Your task to perform on an android device: add a label to a message in the gmail app Image 0: 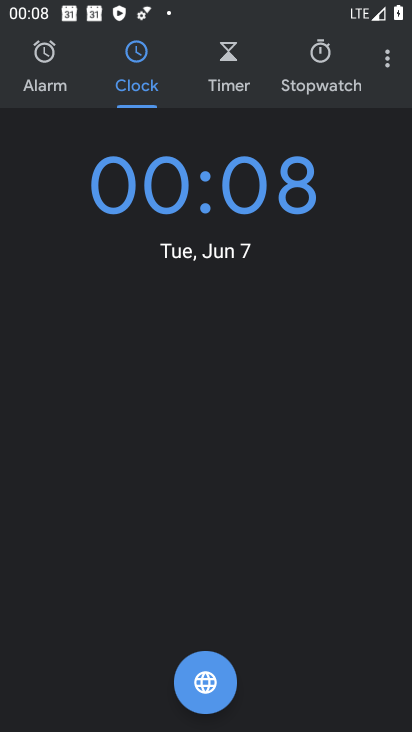
Step 0: press home button
Your task to perform on an android device: add a label to a message in the gmail app Image 1: 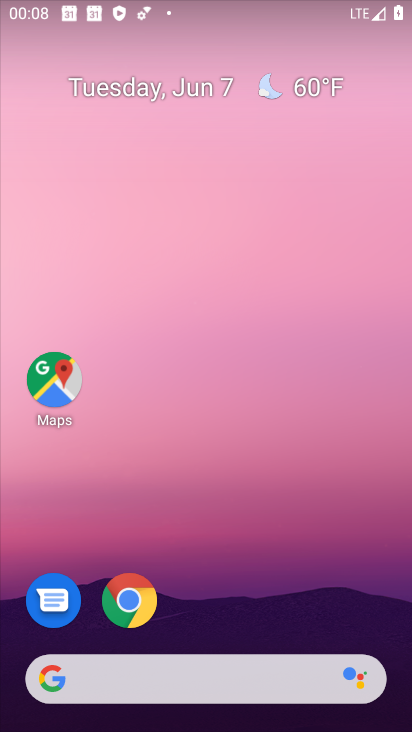
Step 1: drag from (233, 711) to (233, 95)
Your task to perform on an android device: add a label to a message in the gmail app Image 2: 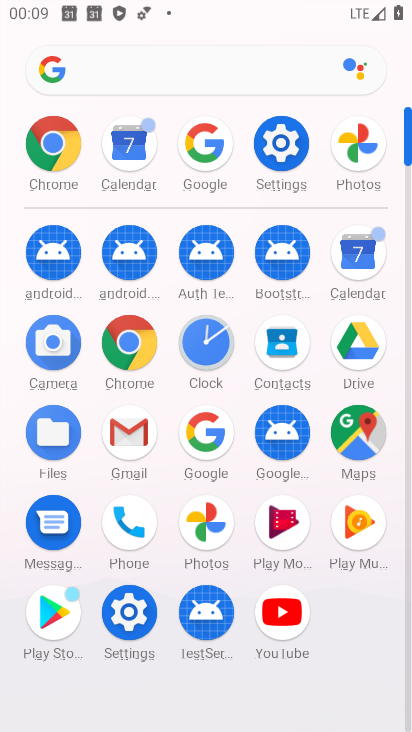
Step 2: click (132, 432)
Your task to perform on an android device: add a label to a message in the gmail app Image 3: 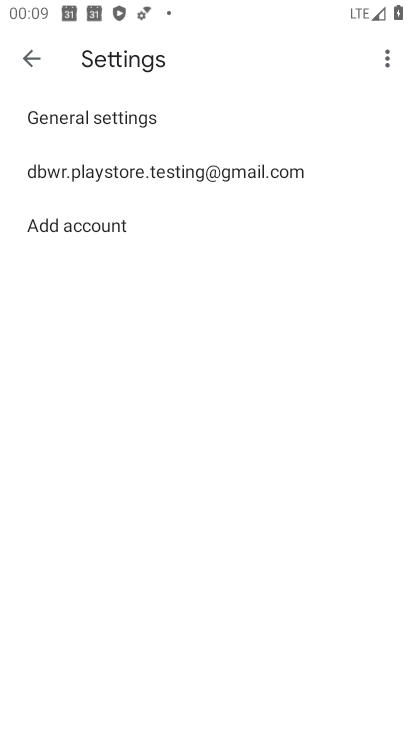
Step 3: click (37, 61)
Your task to perform on an android device: add a label to a message in the gmail app Image 4: 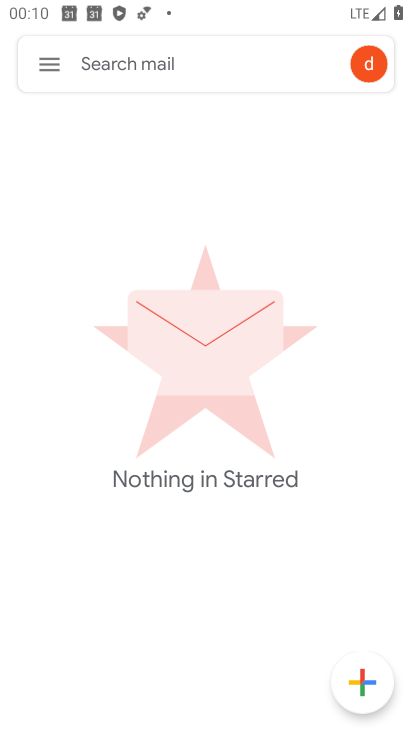
Step 4: click (49, 61)
Your task to perform on an android device: add a label to a message in the gmail app Image 5: 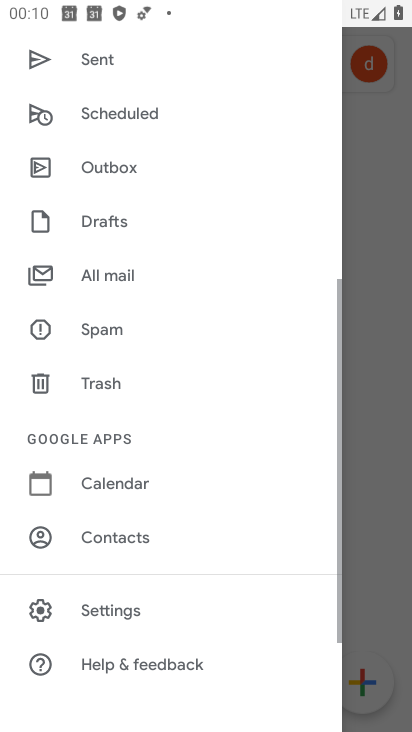
Step 5: drag from (157, 115) to (178, 586)
Your task to perform on an android device: add a label to a message in the gmail app Image 6: 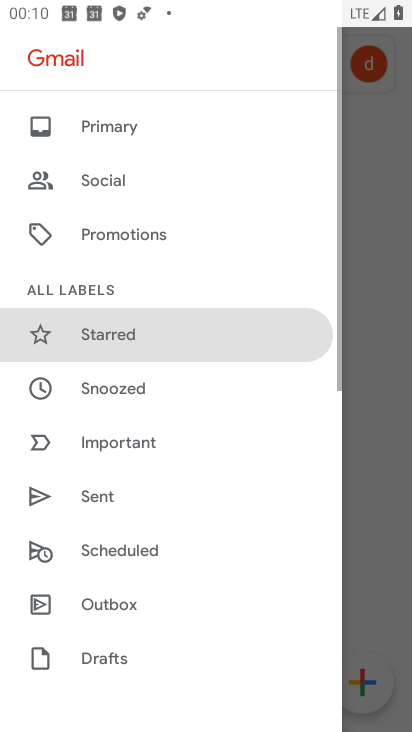
Step 6: drag from (107, 142) to (108, 518)
Your task to perform on an android device: add a label to a message in the gmail app Image 7: 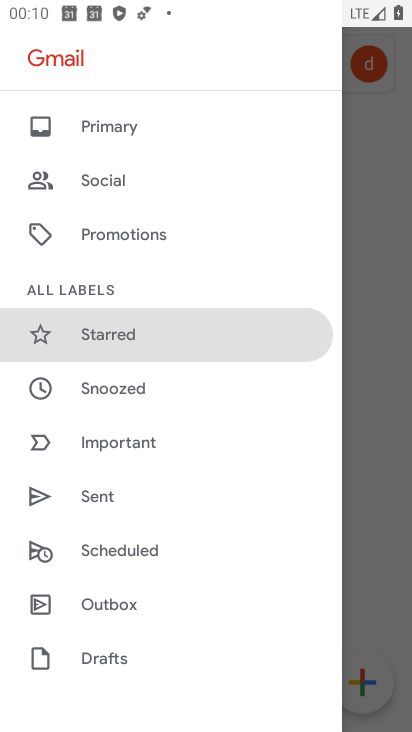
Step 7: drag from (105, 137) to (105, 396)
Your task to perform on an android device: add a label to a message in the gmail app Image 8: 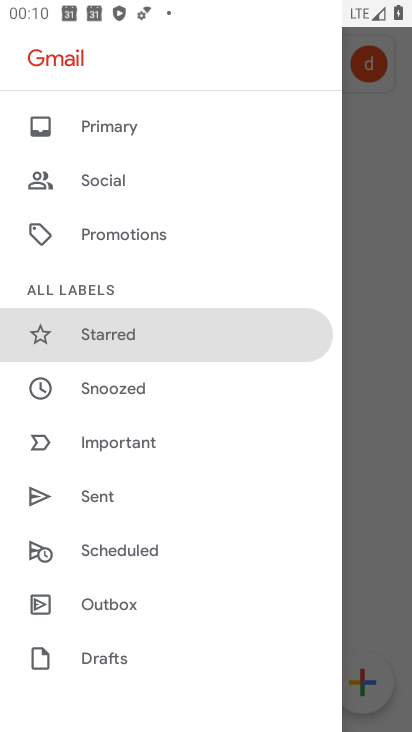
Step 8: drag from (130, 133) to (136, 489)
Your task to perform on an android device: add a label to a message in the gmail app Image 9: 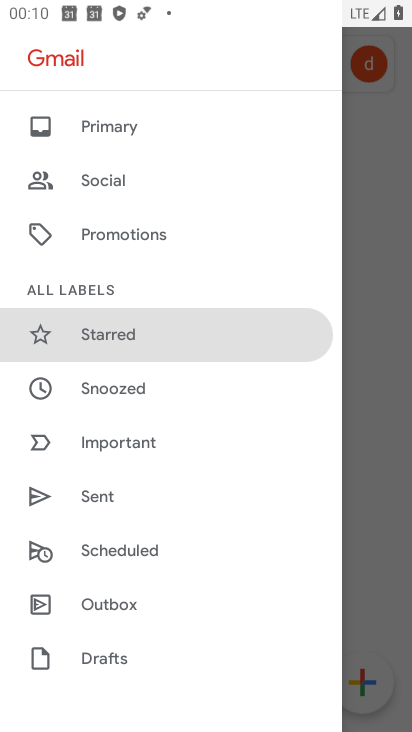
Step 9: click (97, 129)
Your task to perform on an android device: add a label to a message in the gmail app Image 10: 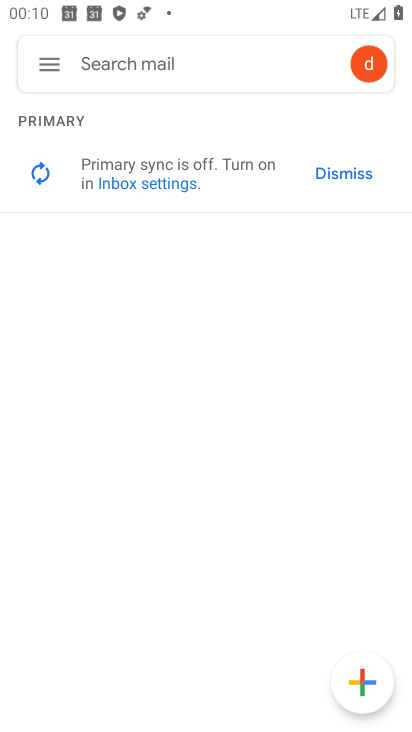
Step 10: task complete